Your task to perform on an android device: install app "Google Sheets" Image 0: 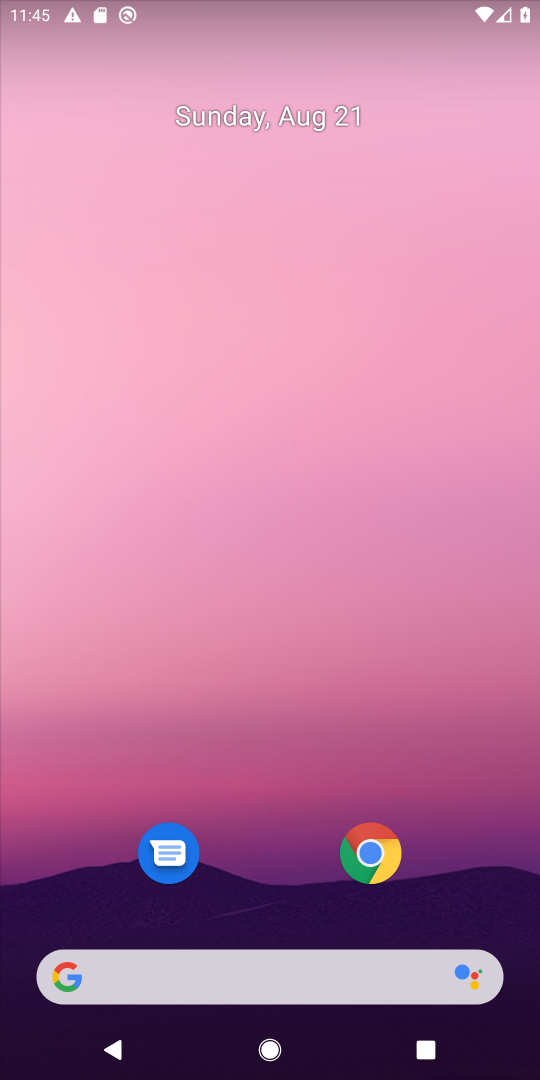
Step 0: press home button
Your task to perform on an android device: install app "Google Sheets" Image 1: 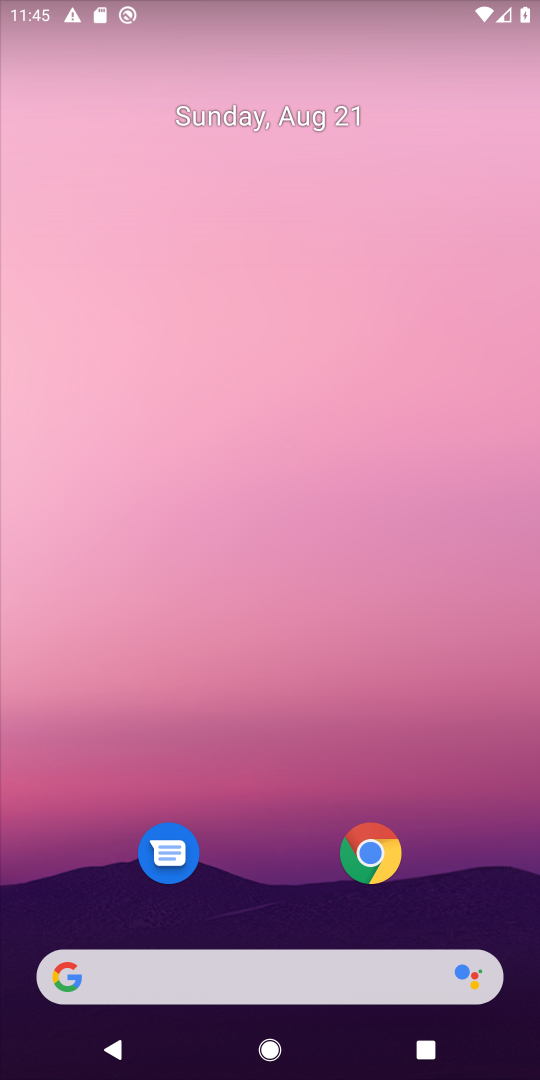
Step 1: drag from (264, 897) to (348, 216)
Your task to perform on an android device: install app "Google Sheets" Image 2: 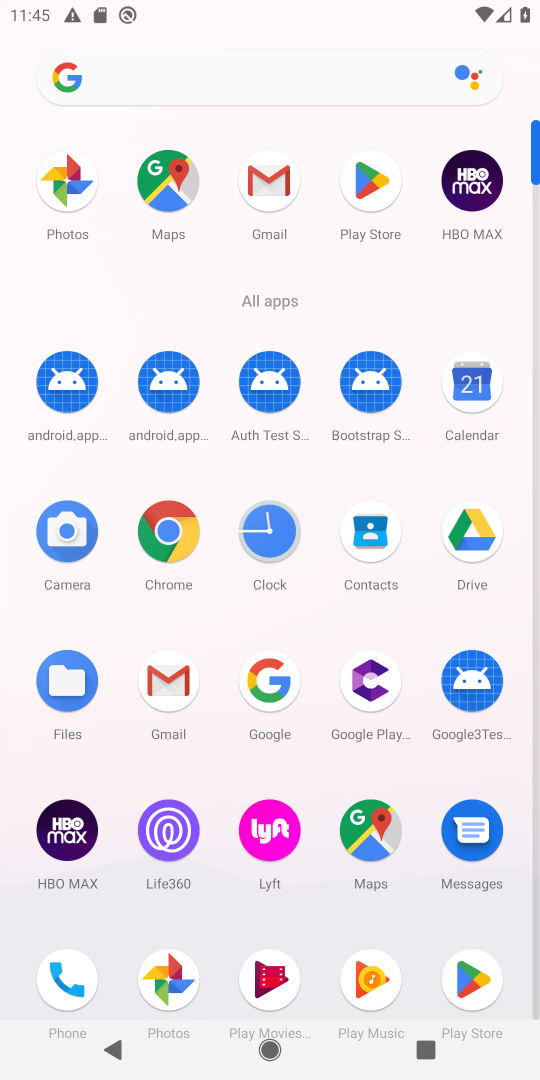
Step 2: click (376, 176)
Your task to perform on an android device: install app "Google Sheets" Image 3: 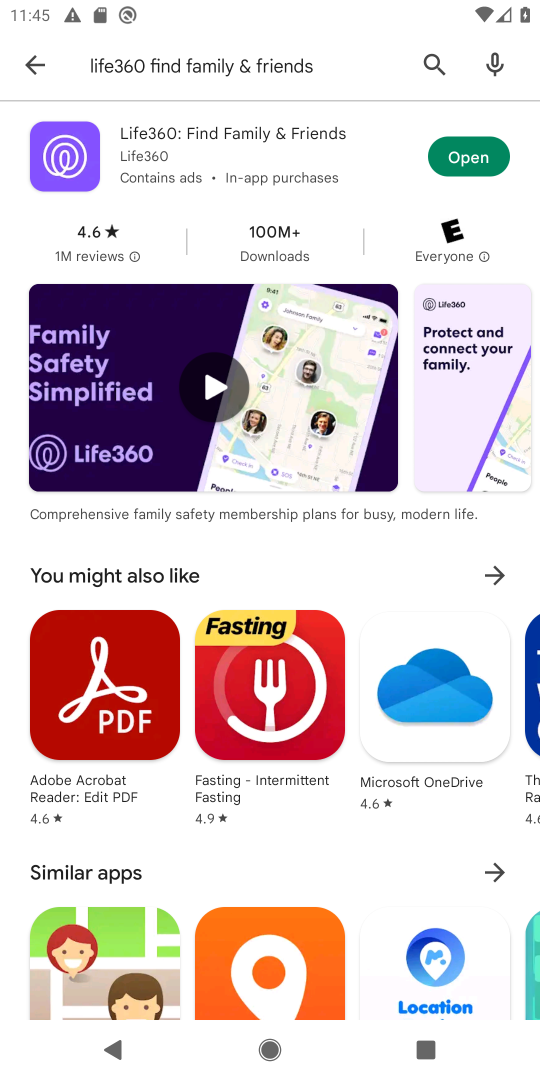
Step 3: click (17, 62)
Your task to perform on an android device: install app "Google Sheets" Image 4: 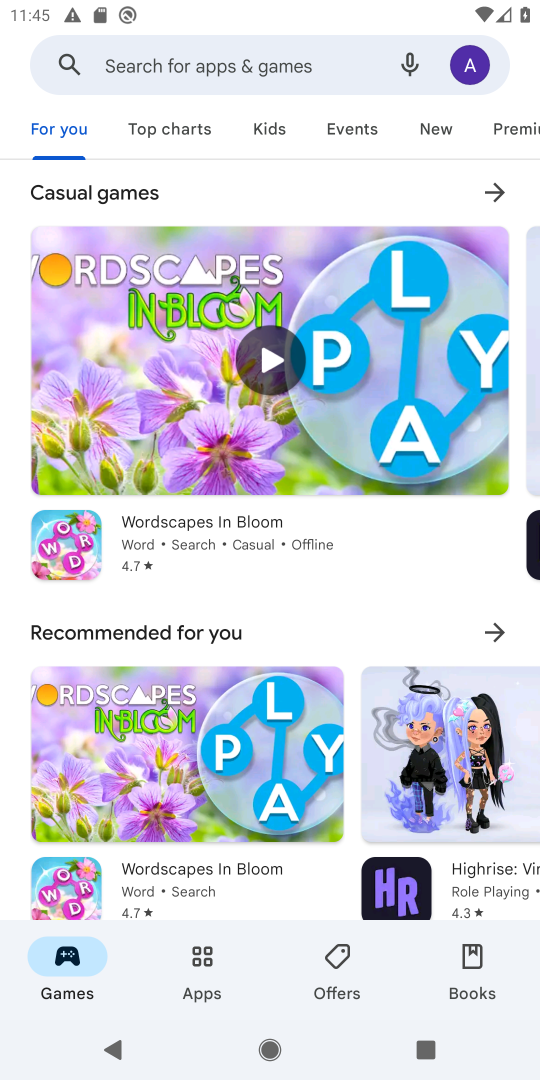
Step 4: click (247, 57)
Your task to perform on an android device: install app "Google Sheets" Image 5: 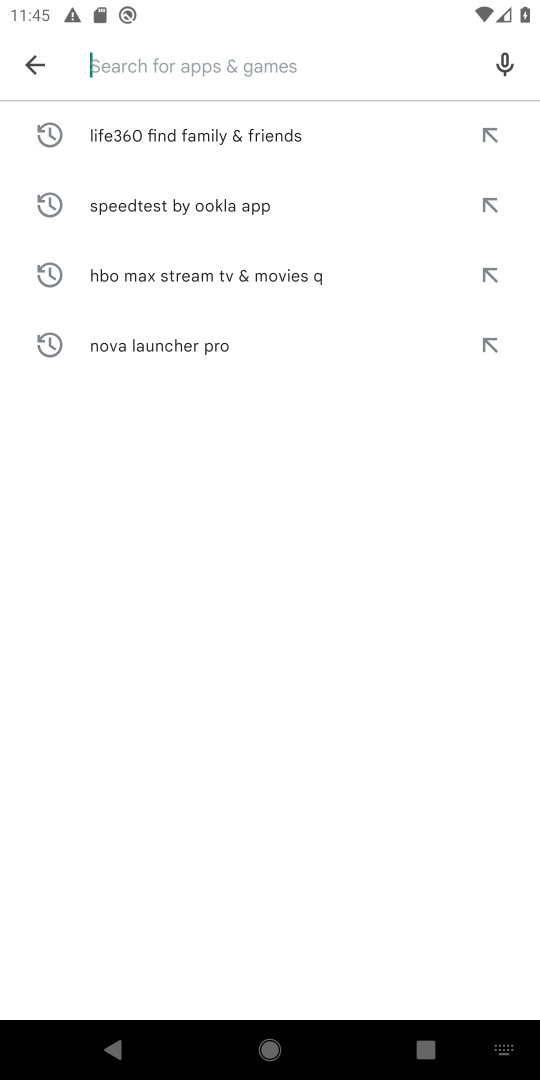
Step 5: type "Google Sheets "
Your task to perform on an android device: install app "Google Sheets" Image 6: 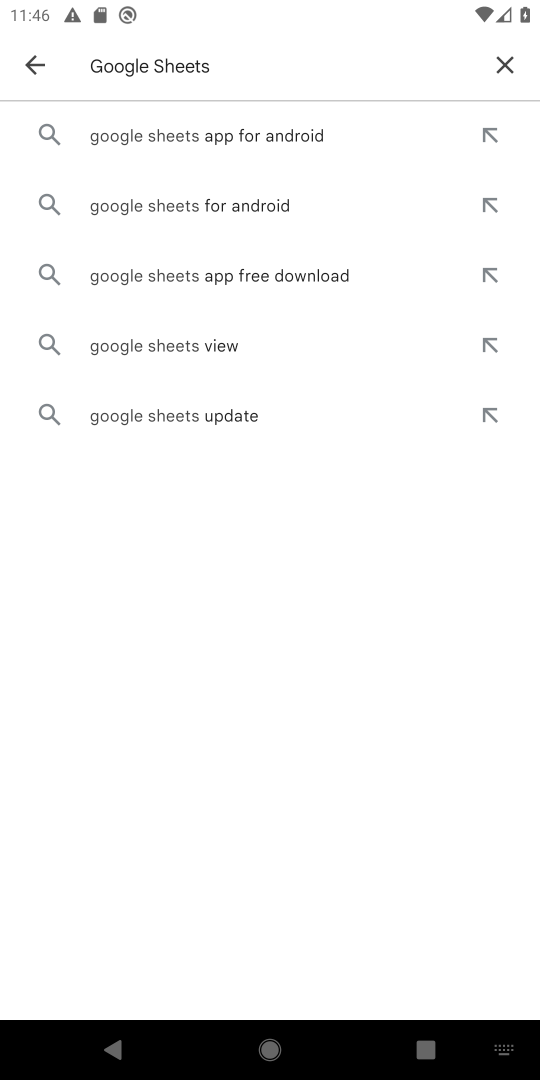
Step 6: click (197, 138)
Your task to perform on an android device: install app "Google Sheets" Image 7: 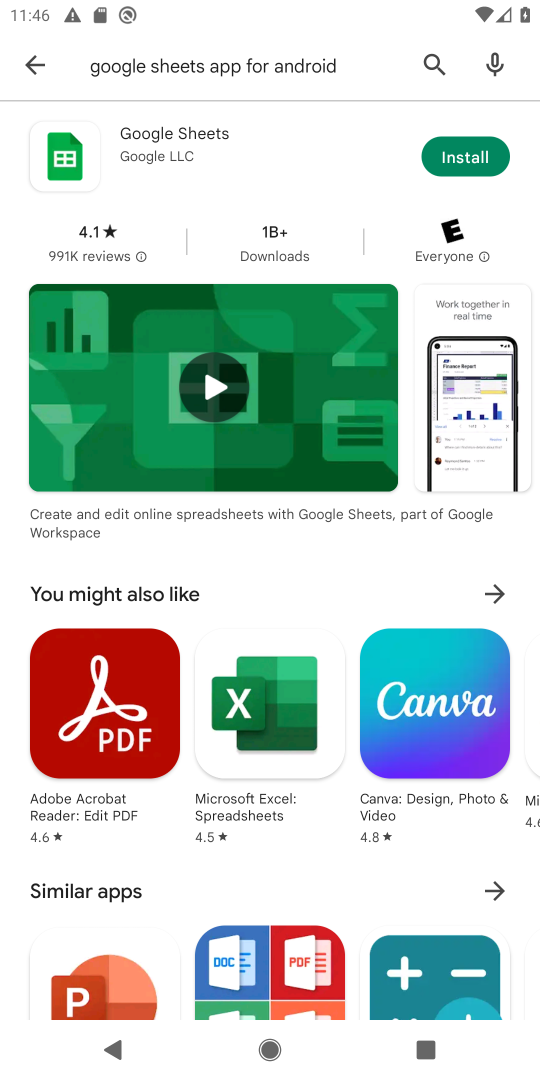
Step 7: click (465, 153)
Your task to perform on an android device: install app "Google Sheets" Image 8: 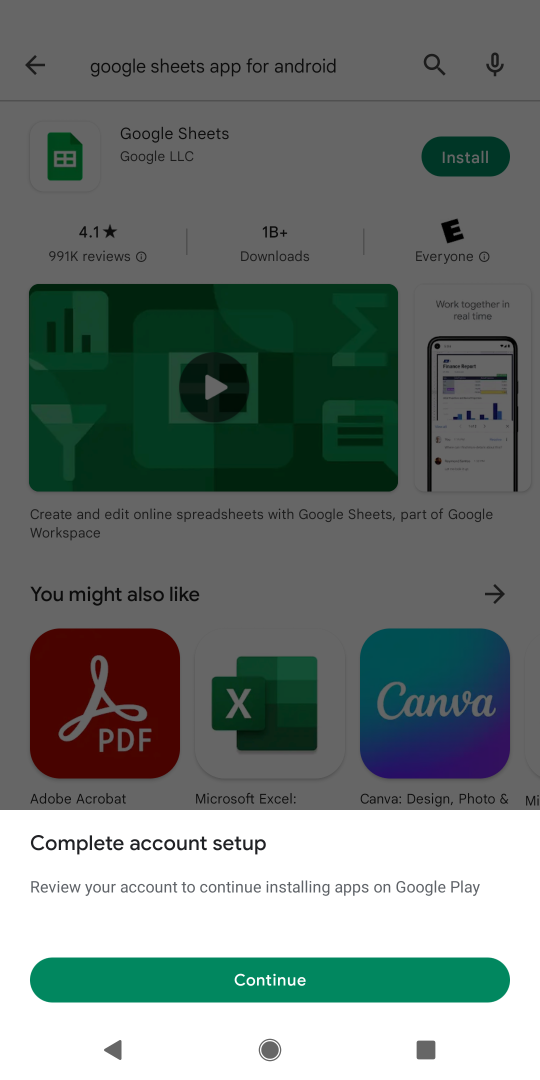
Step 8: task complete